Your task to perform on an android device: all mails in gmail Image 0: 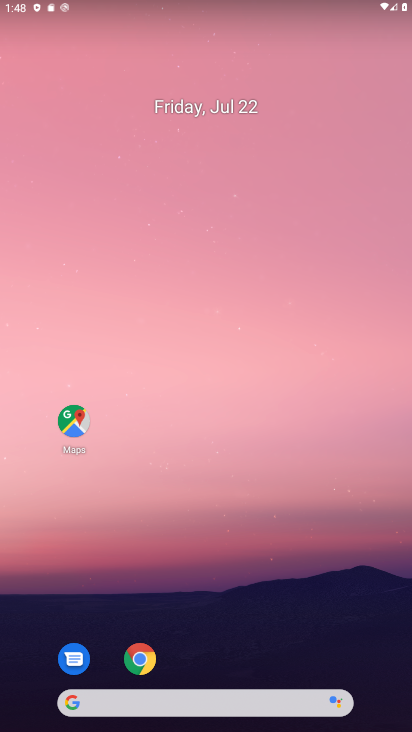
Step 0: drag from (256, 661) to (236, 125)
Your task to perform on an android device: all mails in gmail Image 1: 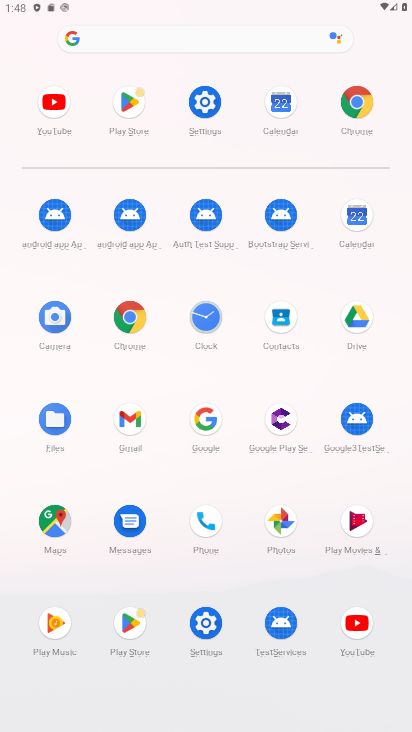
Step 1: click (141, 439)
Your task to perform on an android device: all mails in gmail Image 2: 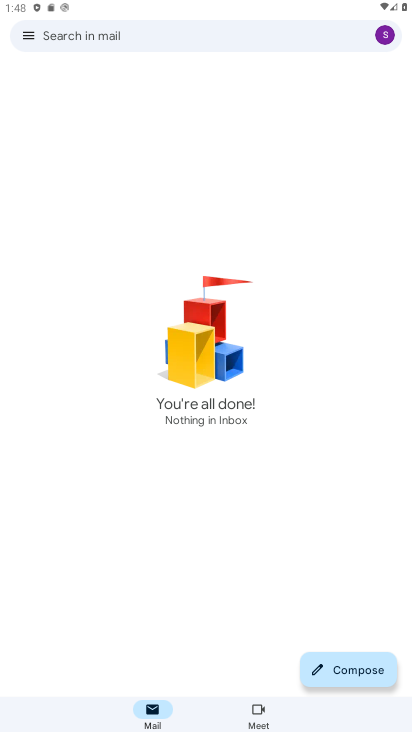
Step 2: task complete